Your task to perform on an android device: check data usage Image 0: 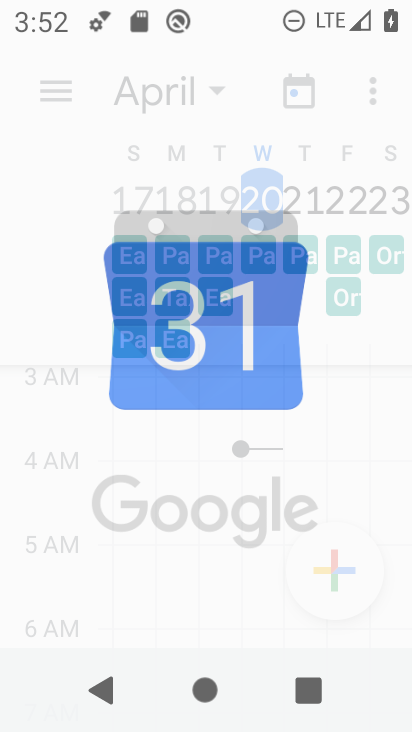
Step 0: drag from (346, 508) to (362, 365)
Your task to perform on an android device: check data usage Image 1: 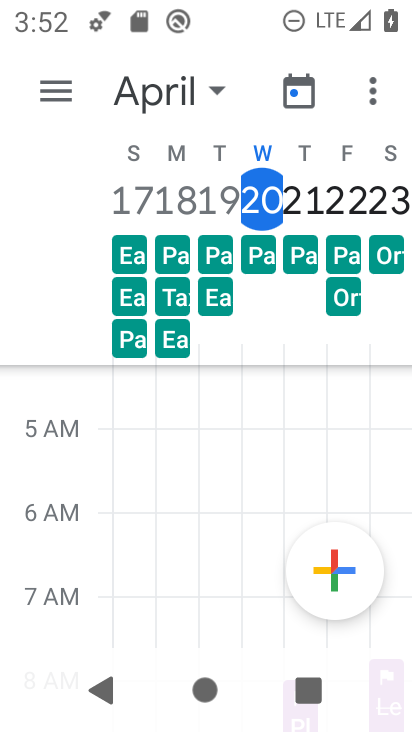
Step 1: press home button
Your task to perform on an android device: check data usage Image 2: 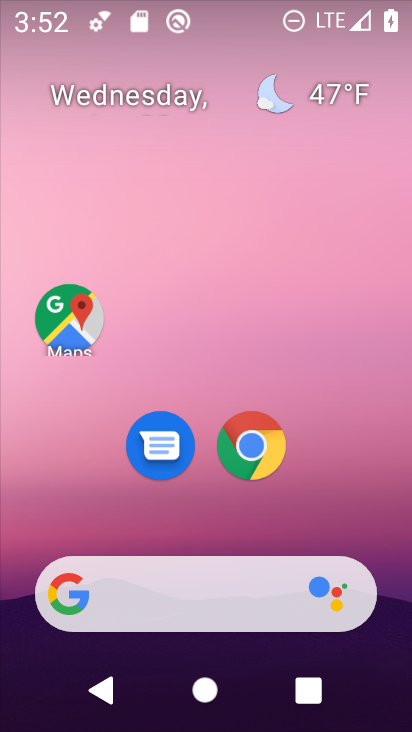
Step 2: drag from (340, 522) to (404, 57)
Your task to perform on an android device: check data usage Image 3: 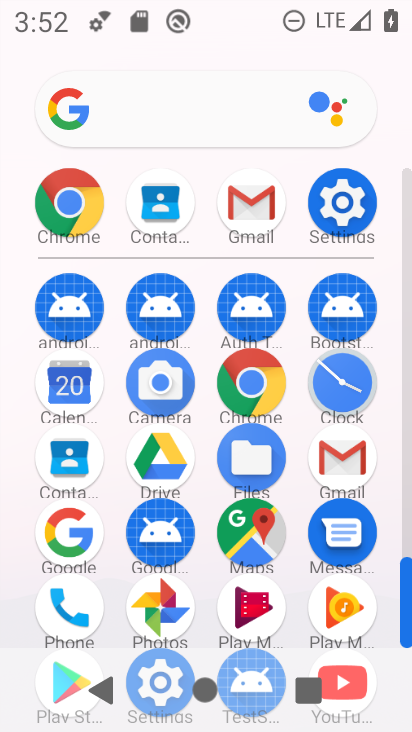
Step 3: click (344, 204)
Your task to perform on an android device: check data usage Image 4: 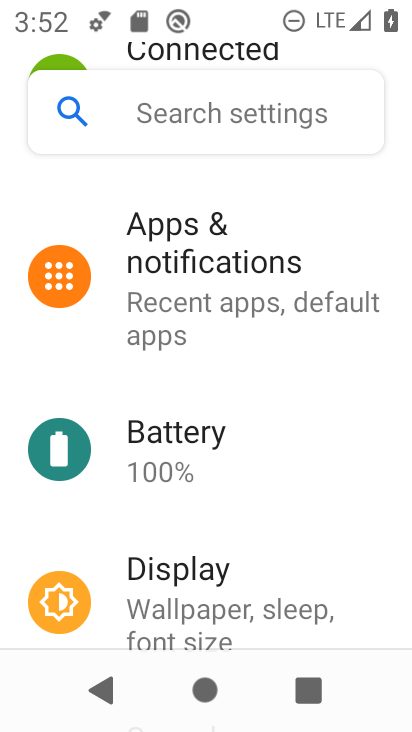
Step 4: drag from (272, 322) to (274, 496)
Your task to perform on an android device: check data usage Image 5: 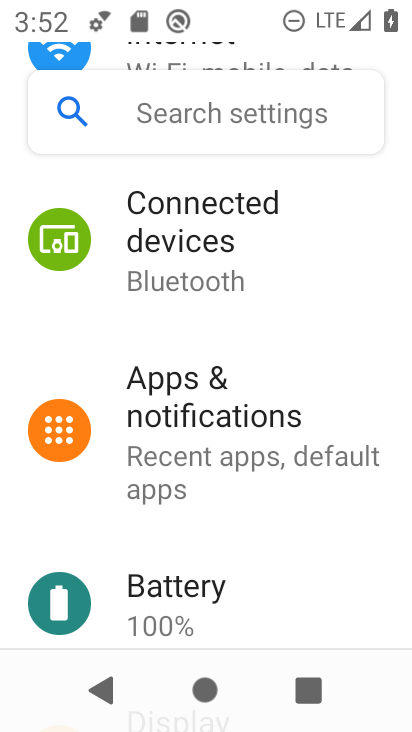
Step 5: drag from (320, 294) to (349, 480)
Your task to perform on an android device: check data usage Image 6: 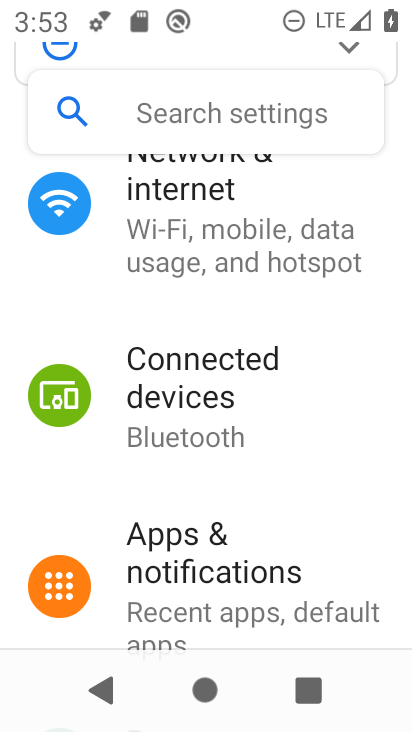
Step 6: drag from (331, 209) to (343, 455)
Your task to perform on an android device: check data usage Image 7: 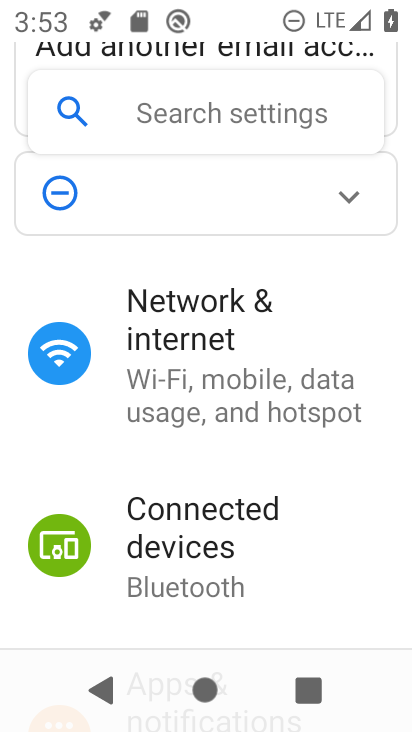
Step 7: click (233, 310)
Your task to perform on an android device: check data usage Image 8: 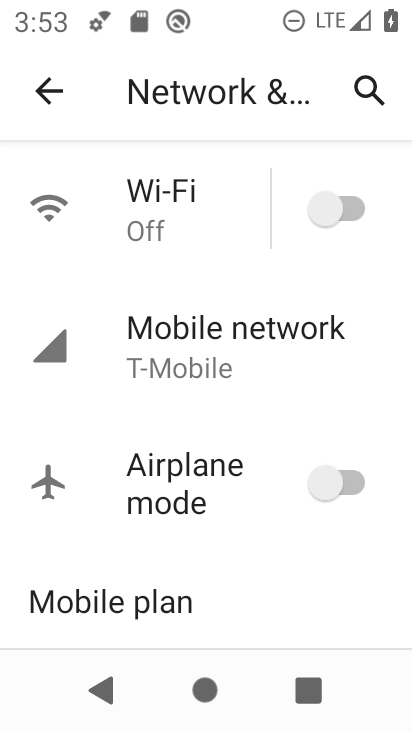
Step 8: click (235, 332)
Your task to perform on an android device: check data usage Image 9: 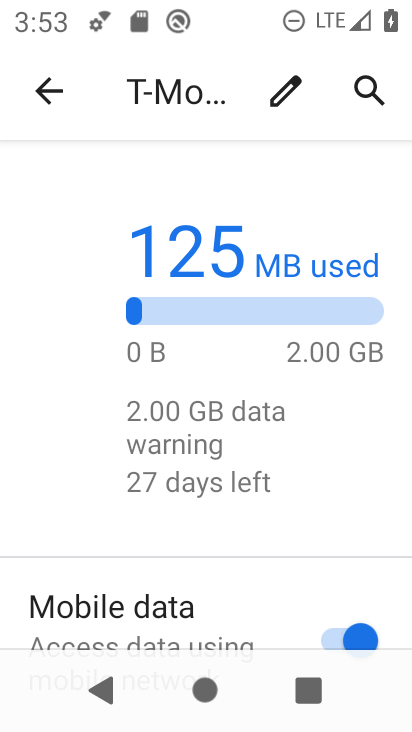
Step 9: task complete